Your task to perform on an android device: check google app version Image 0: 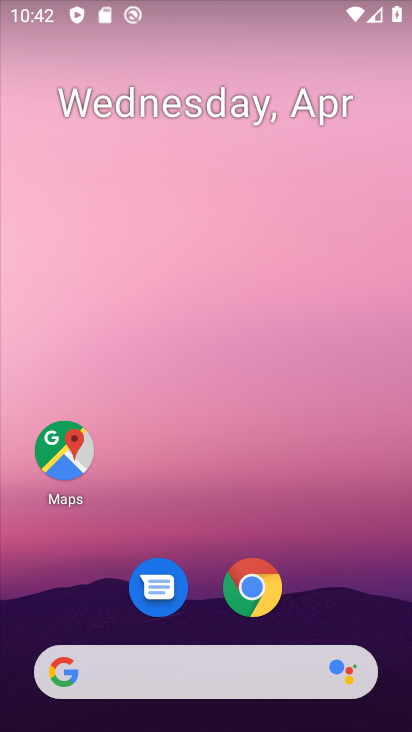
Step 0: drag from (179, 565) to (246, 87)
Your task to perform on an android device: check google app version Image 1: 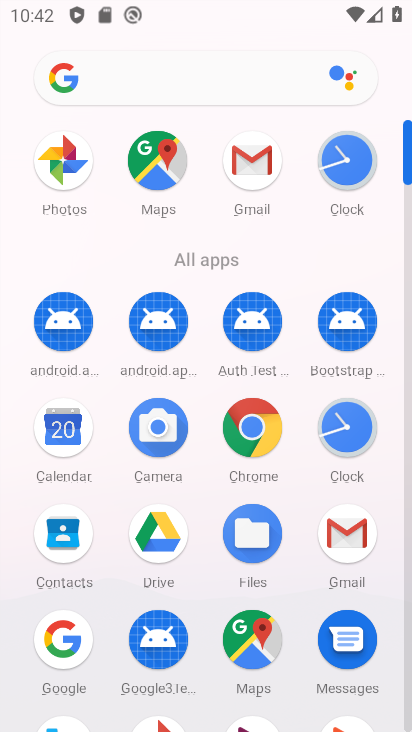
Step 1: drag from (205, 620) to (283, 115)
Your task to perform on an android device: check google app version Image 2: 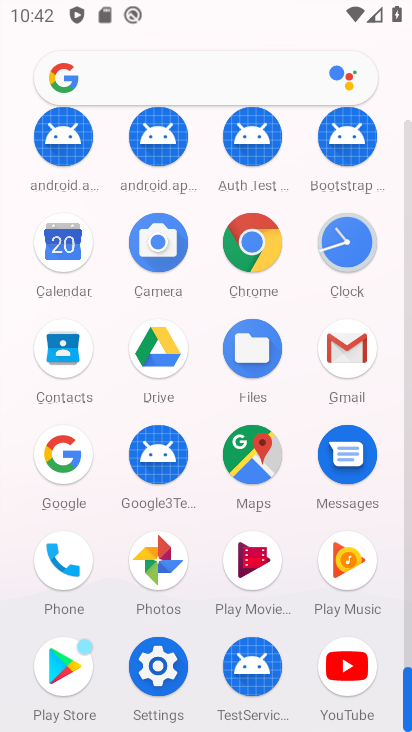
Step 2: click (61, 459)
Your task to perform on an android device: check google app version Image 3: 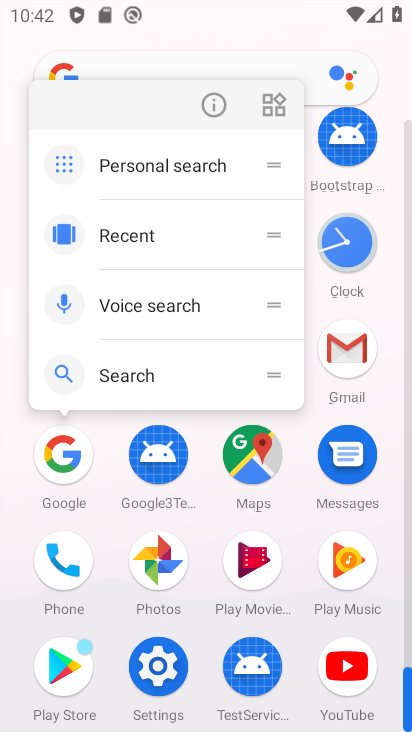
Step 3: click (214, 99)
Your task to perform on an android device: check google app version Image 4: 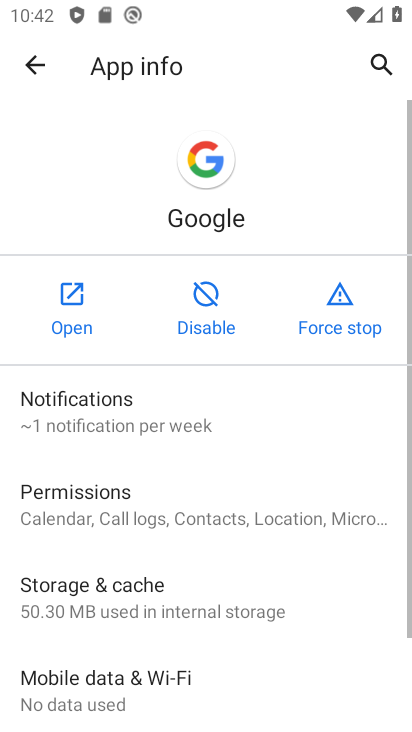
Step 4: drag from (167, 629) to (239, 39)
Your task to perform on an android device: check google app version Image 5: 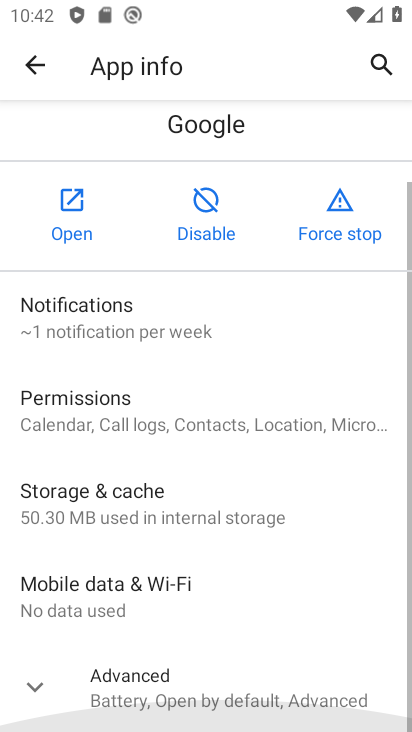
Step 5: drag from (161, 585) to (223, 92)
Your task to perform on an android device: check google app version Image 6: 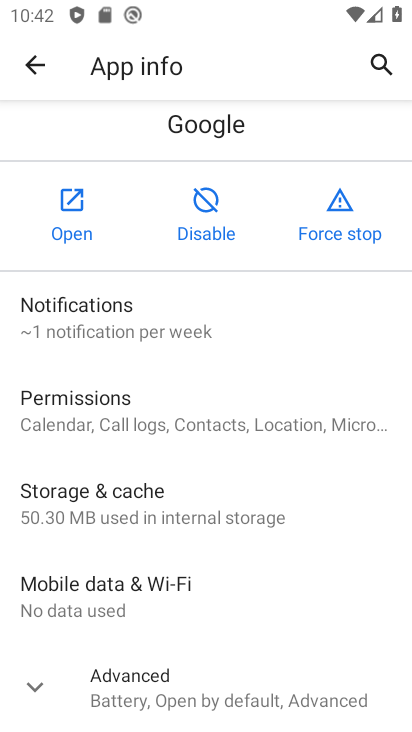
Step 6: drag from (152, 647) to (230, 168)
Your task to perform on an android device: check google app version Image 7: 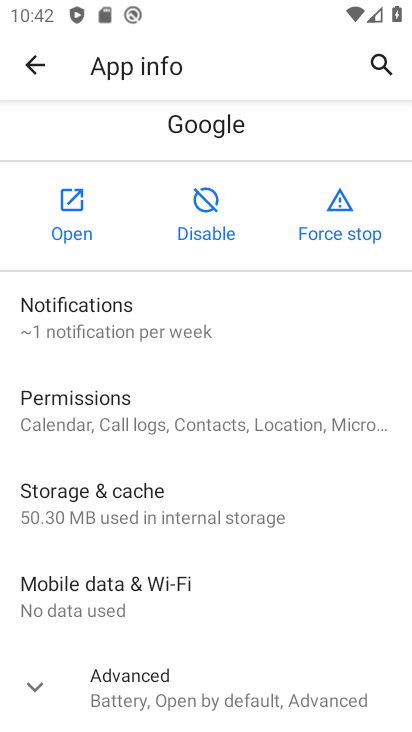
Step 7: drag from (114, 661) to (280, 62)
Your task to perform on an android device: check google app version Image 8: 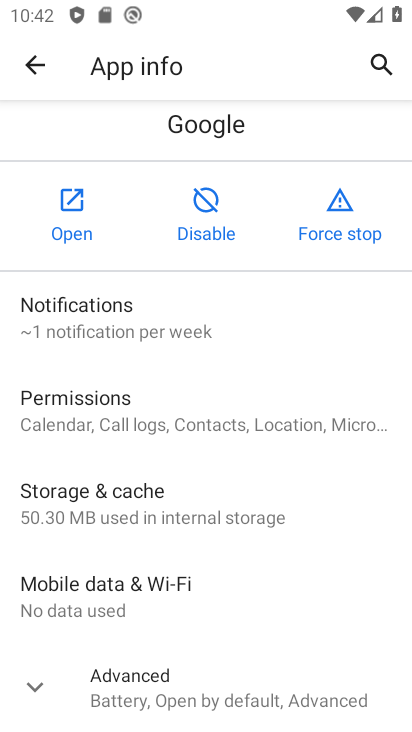
Step 8: click (183, 701)
Your task to perform on an android device: check google app version Image 9: 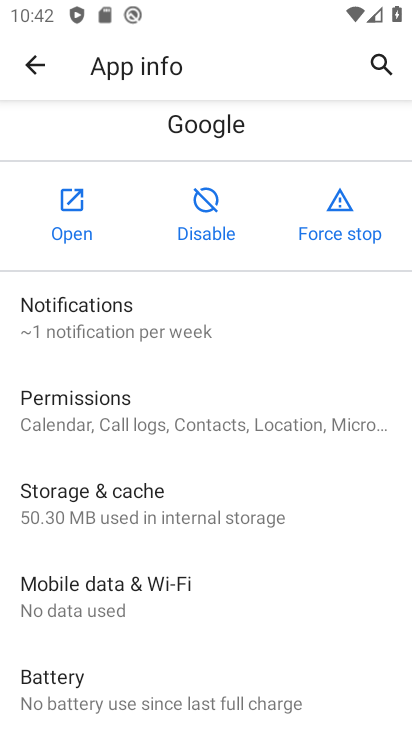
Step 9: task complete